Your task to perform on an android device: What's the price of the EGO 14-in 56-Volt Brushless Cordless Chainsaw? Image 0: 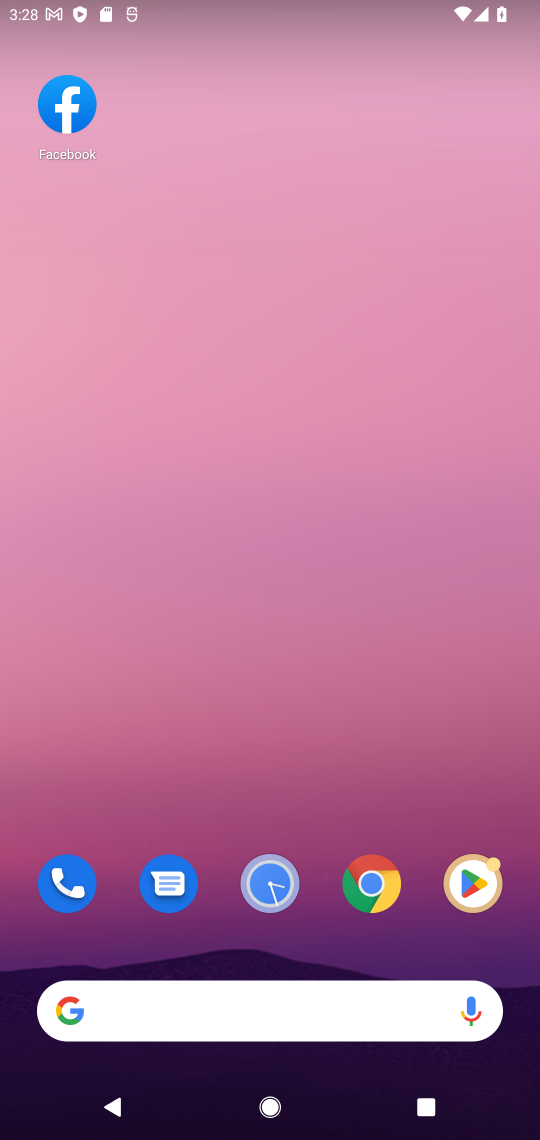
Step 0: click (365, 883)
Your task to perform on an android device: What's the price of the EGO 14-in 56-Volt Brushless Cordless Chainsaw? Image 1: 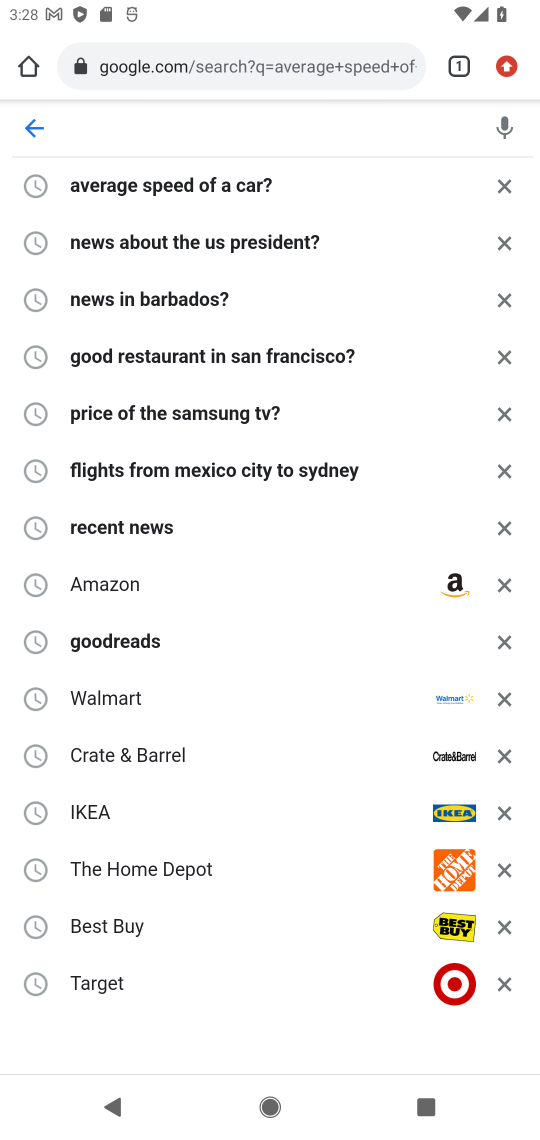
Step 1: drag from (197, 1136) to (314, 971)
Your task to perform on an android device: What's the price of the EGO 14-in 56-Volt Brushless Cordless Chainsaw? Image 2: 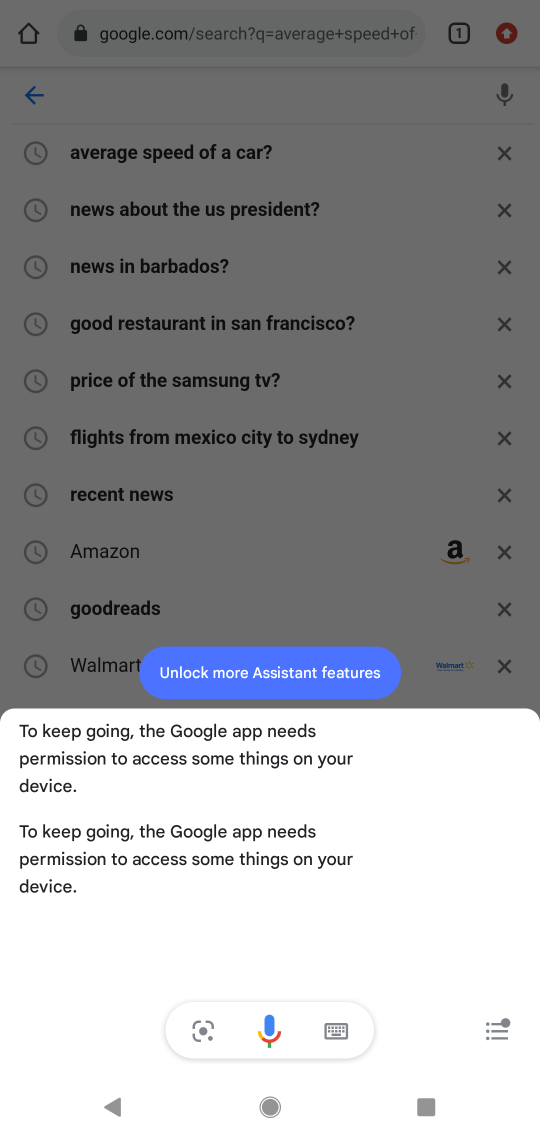
Step 2: press home button
Your task to perform on an android device: What's the price of the EGO 14-in 56-Volt Brushless Cordless Chainsaw? Image 3: 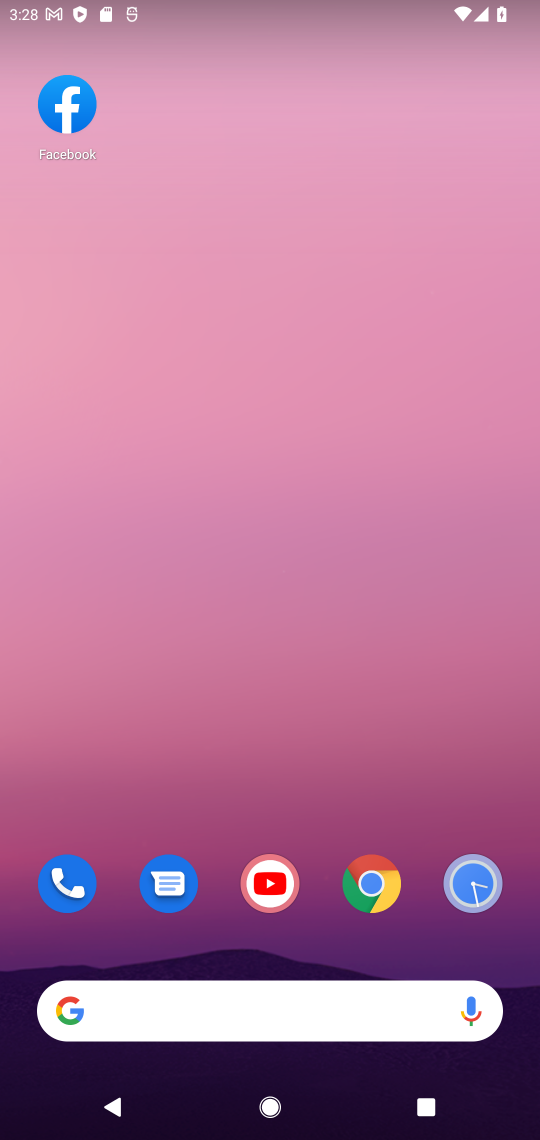
Step 3: click (391, 922)
Your task to perform on an android device: What's the price of the EGO 14-in 56-Volt Brushless Cordless Chainsaw? Image 4: 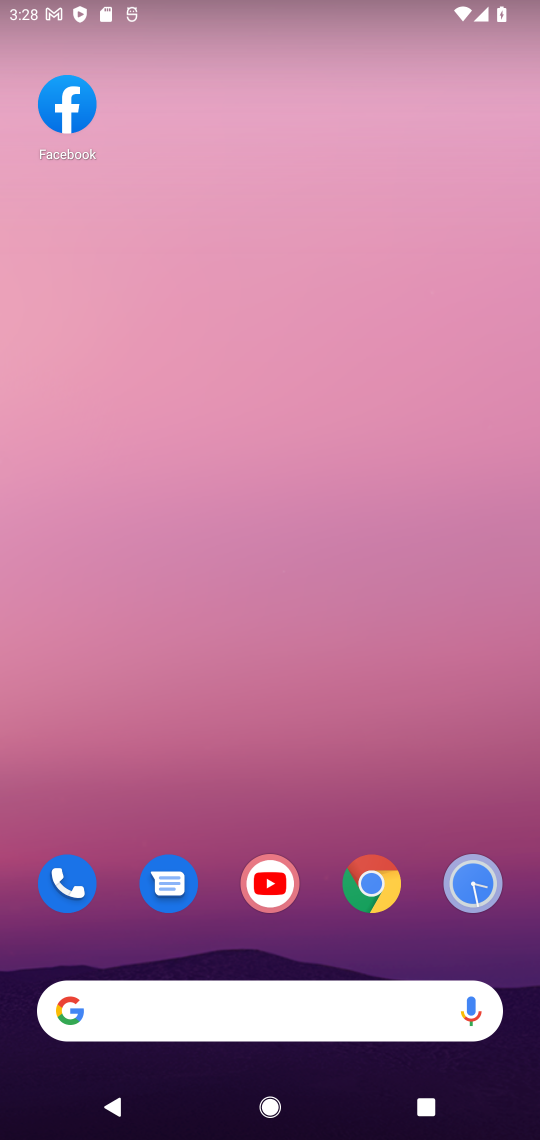
Step 4: click (376, 913)
Your task to perform on an android device: What's the price of the EGO 14-in 56-Volt Brushless Cordless Chainsaw? Image 5: 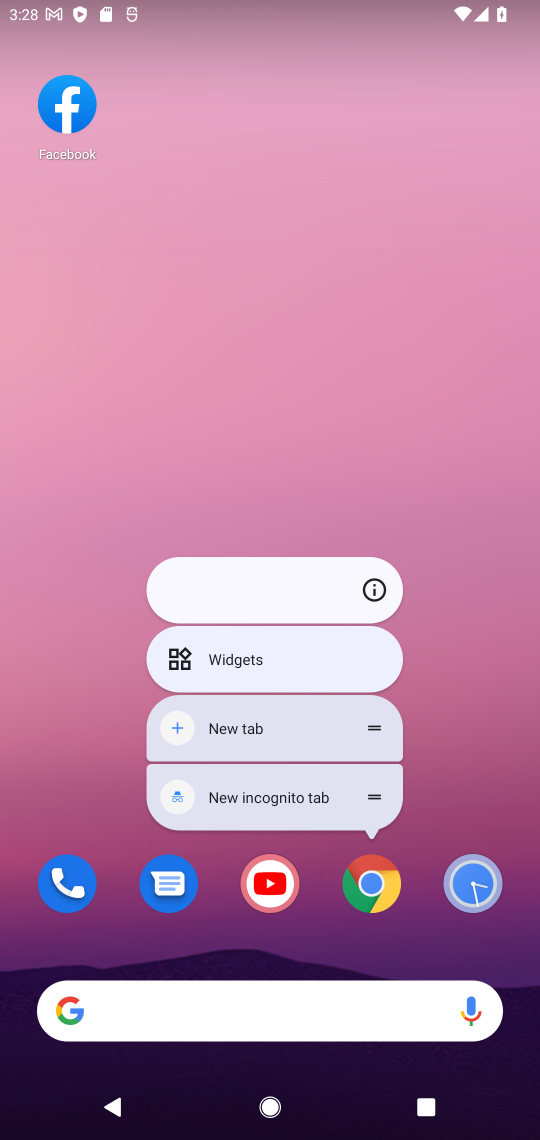
Step 5: click (373, 913)
Your task to perform on an android device: What's the price of the EGO 14-in 56-Volt Brushless Cordless Chainsaw? Image 6: 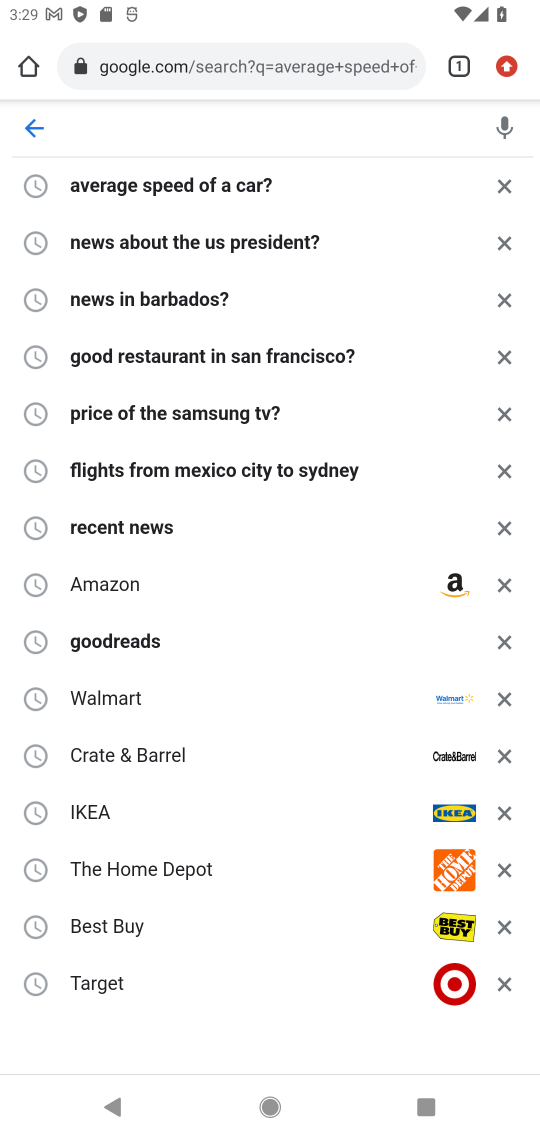
Step 6: type "What's the price of the EGO 14-in 56-Volt Brushless Cordless Chainsaw?"
Your task to perform on an android device: What's the price of the EGO 14-in 56-Volt Brushless Cordless Chainsaw? Image 7: 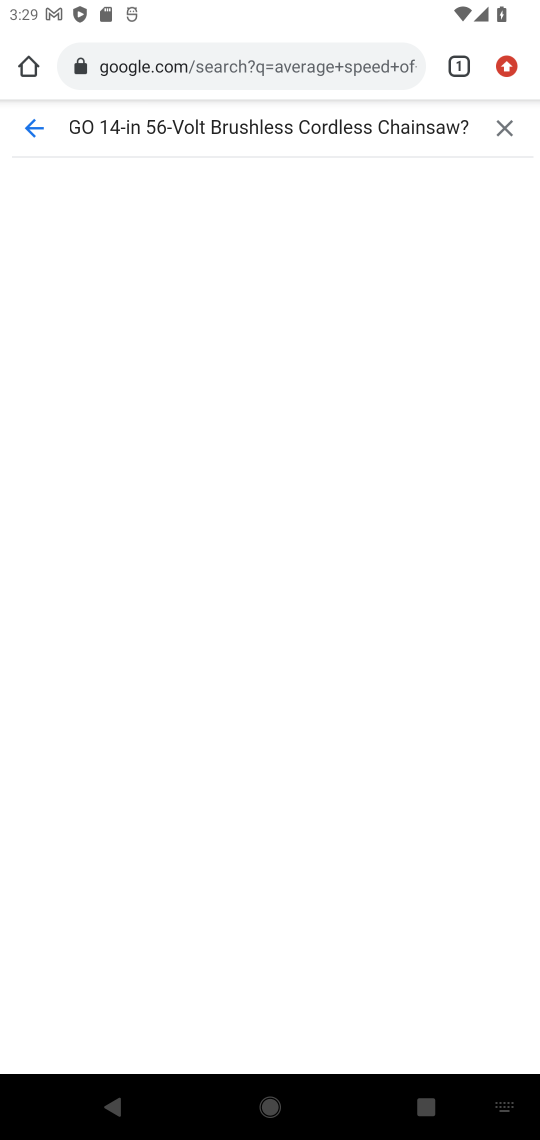
Step 7: press enter
Your task to perform on an android device: What's the price of the EGO 14-in 56-Volt Brushless Cordless Chainsaw? Image 8: 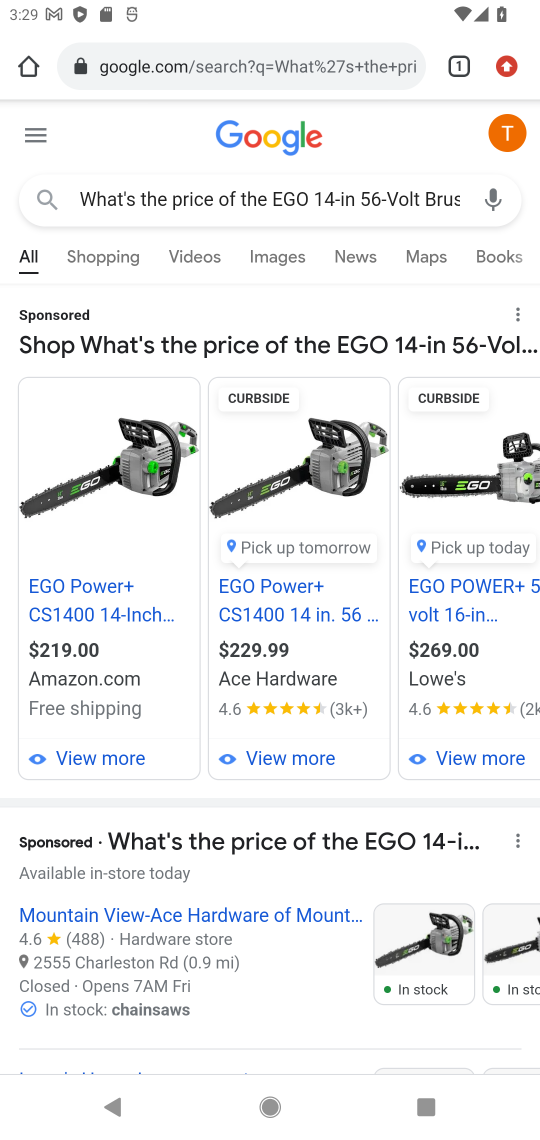
Step 8: task complete